Your task to perform on an android device: turn on location history Image 0: 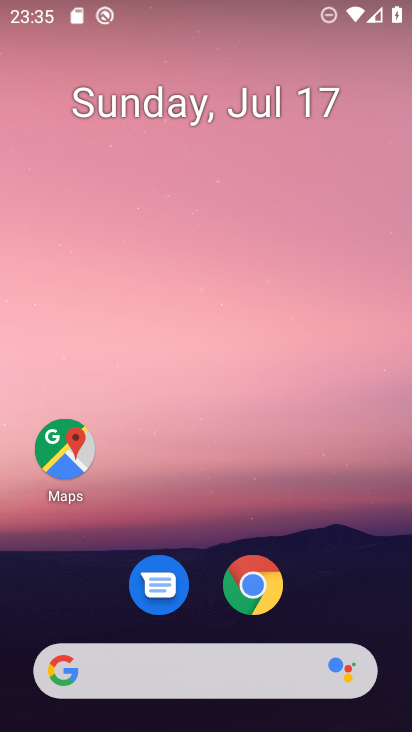
Step 0: press home button
Your task to perform on an android device: turn on location history Image 1: 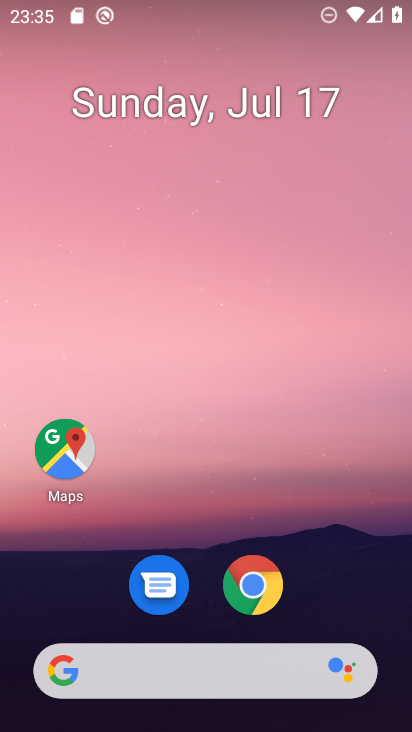
Step 1: click (61, 436)
Your task to perform on an android device: turn on location history Image 2: 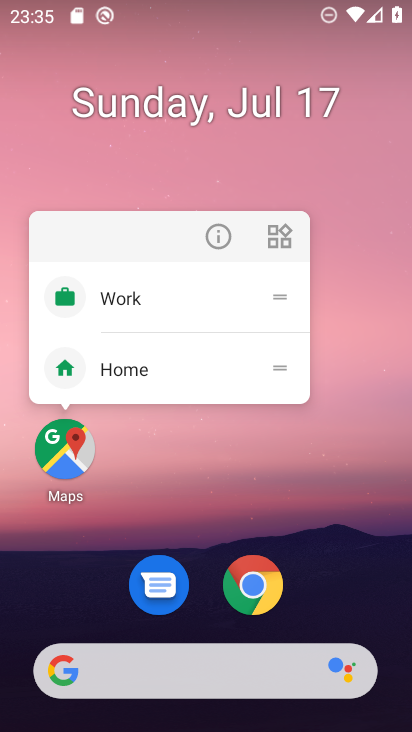
Step 2: click (64, 454)
Your task to perform on an android device: turn on location history Image 3: 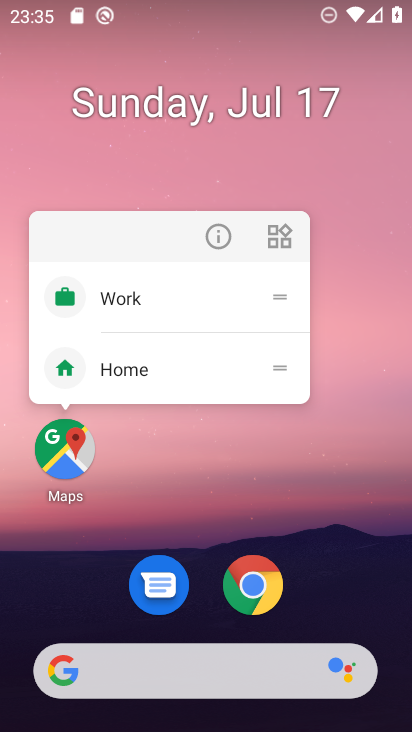
Step 3: click (56, 452)
Your task to perform on an android device: turn on location history Image 4: 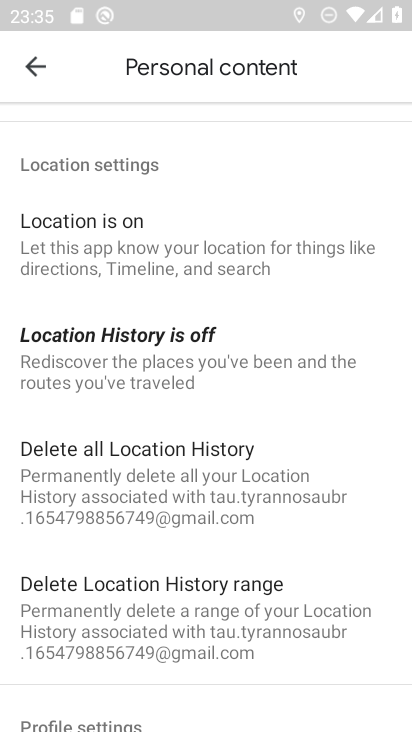
Step 4: click (144, 355)
Your task to perform on an android device: turn on location history Image 5: 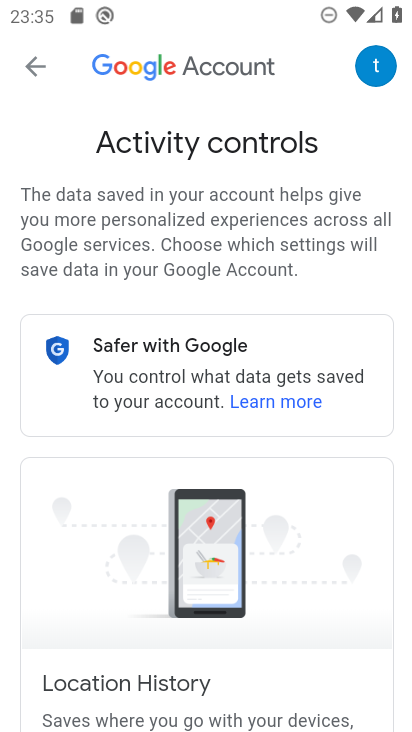
Step 5: task complete